Your task to perform on an android device: change timer sound Image 0: 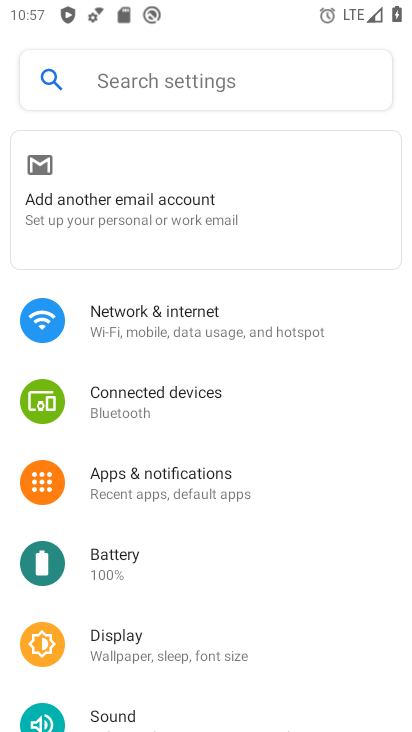
Step 0: click (342, 614)
Your task to perform on an android device: change timer sound Image 1: 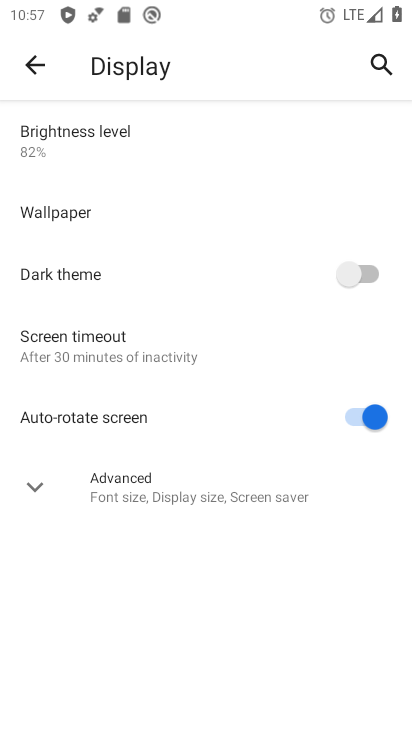
Step 1: press home button
Your task to perform on an android device: change timer sound Image 2: 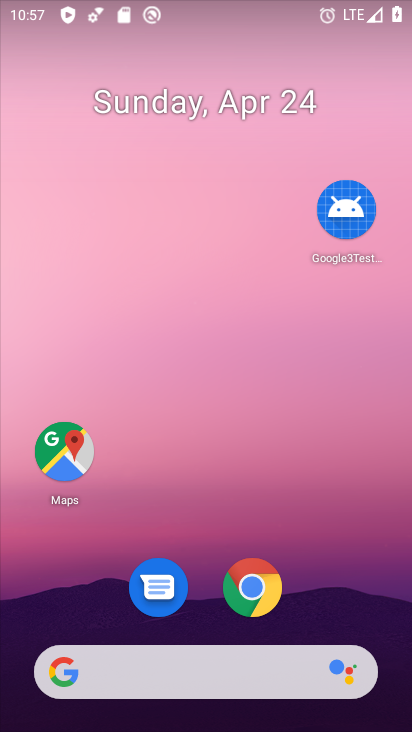
Step 2: drag from (372, 590) to (362, 146)
Your task to perform on an android device: change timer sound Image 3: 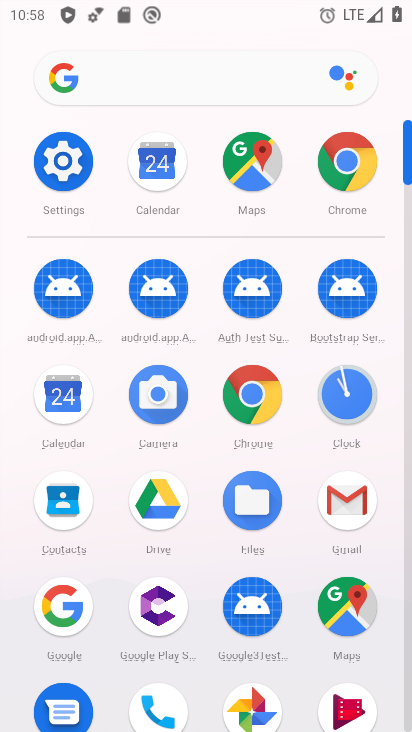
Step 3: click (356, 407)
Your task to perform on an android device: change timer sound Image 4: 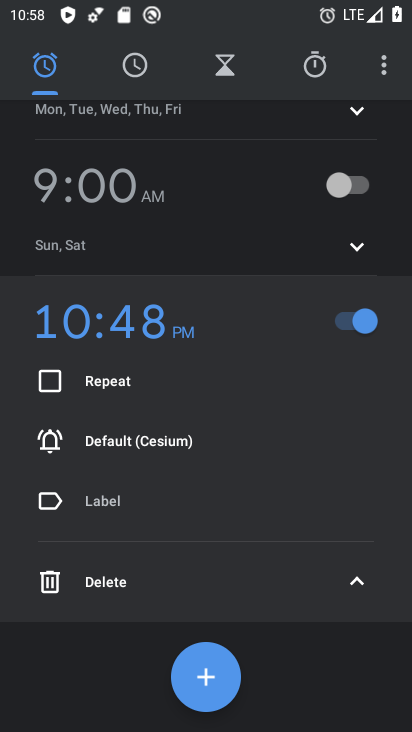
Step 4: click (389, 70)
Your task to perform on an android device: change timer sound Image 5: 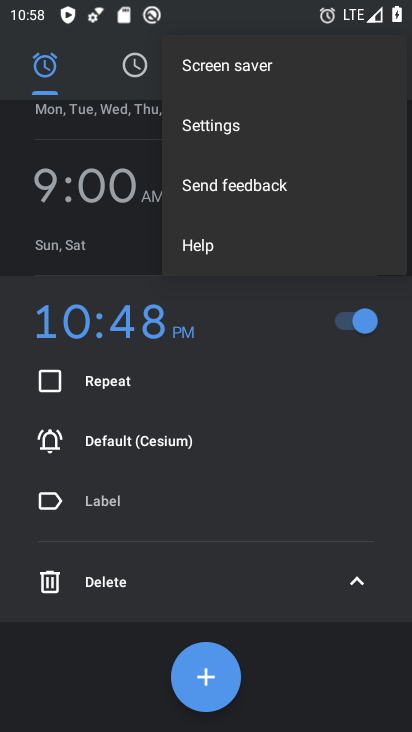
Step 5: click (219, 131)
Your task to perform on an android device: change timer sound Image 6: 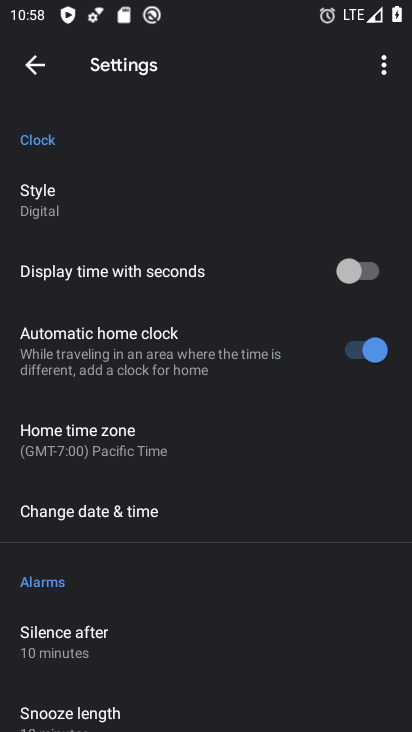
Step 6: drag from (183, 683) to (173, 333)
Your task to perform on an android device: change timer sound Image 7: 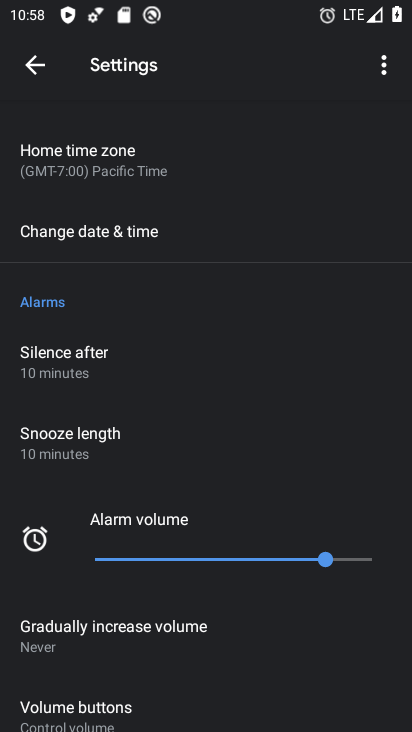
Step 7: drag from (204, 659) to (232, 386)
Your task to perform on an android device: change timer sound Image 8: 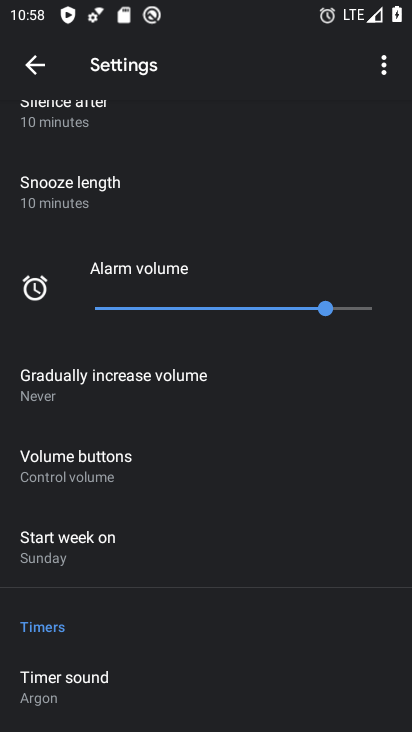
Step 8: drag from (191, 666) to (196, 331)
Your task to perform on an android device: change timer sound Image 9: 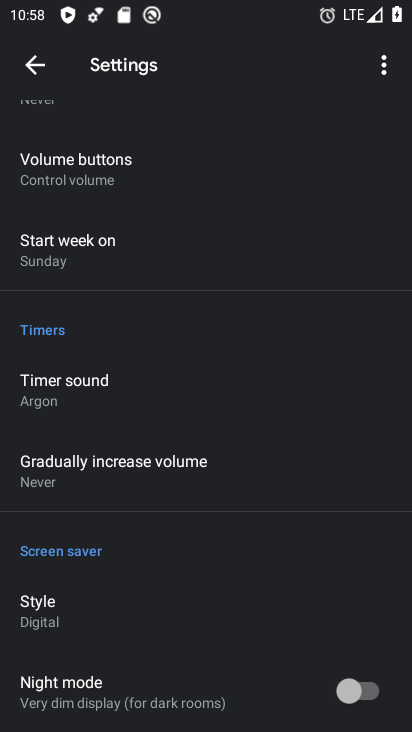
Step 9: click (123, 385)
Your task to perform on an android device: change timer sound Image 10: 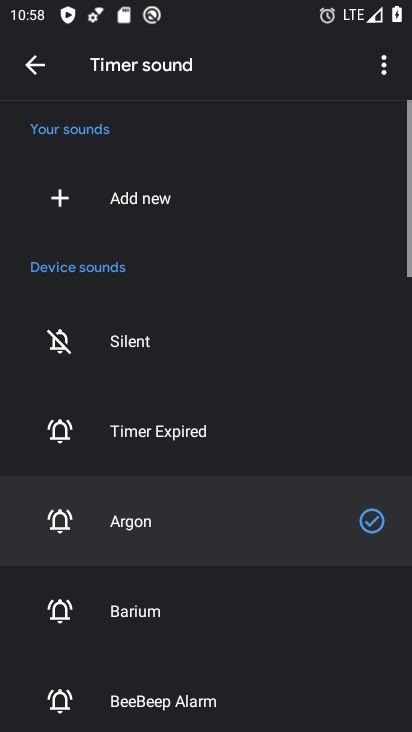
Step 10: click (129, 616)
Your task to perform on an android device: change timer sound Image 11: 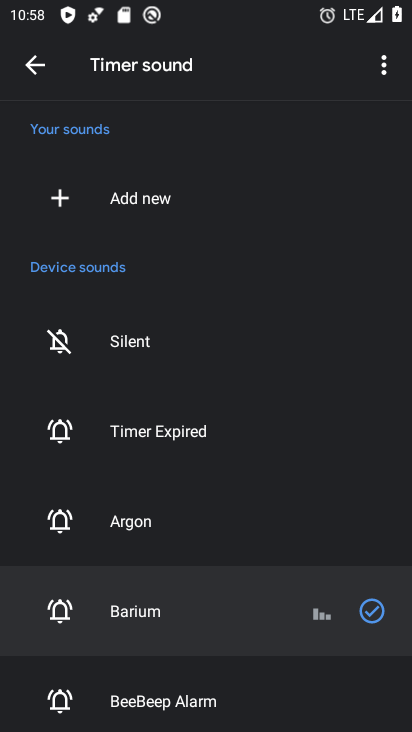
Step 11: task complete